Your task to perform on an android device: open wifi settings Image 0: 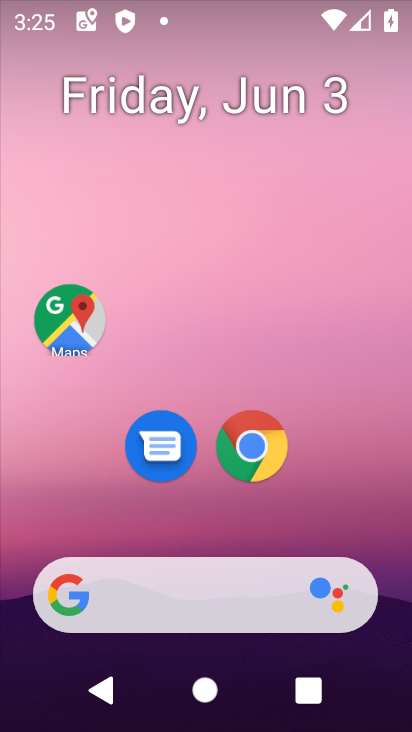
Step 0: click (362, 479)
Your task to perform on an android device: open wifi settings Image 1: 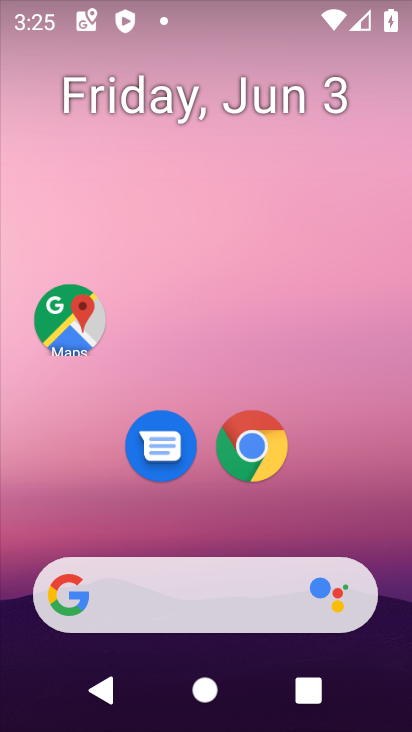
Step 1: drag from (354, 519) to (248, 100)
Your task to perform on an android device: open wifi settings Image 2: 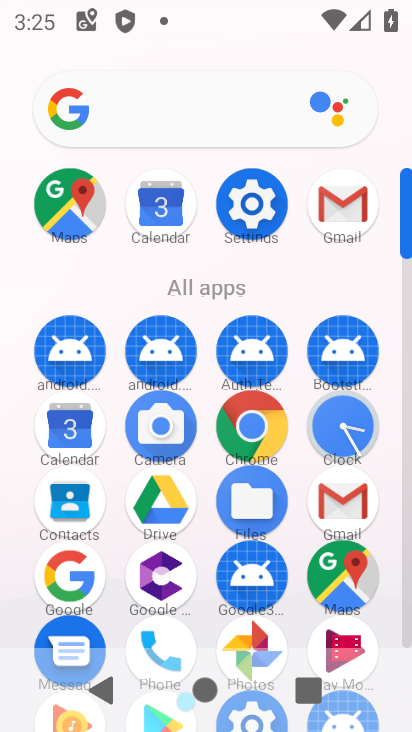
Step 2: click (261, 222)
Your task to perform on an android device: open wifi settings Image 3: 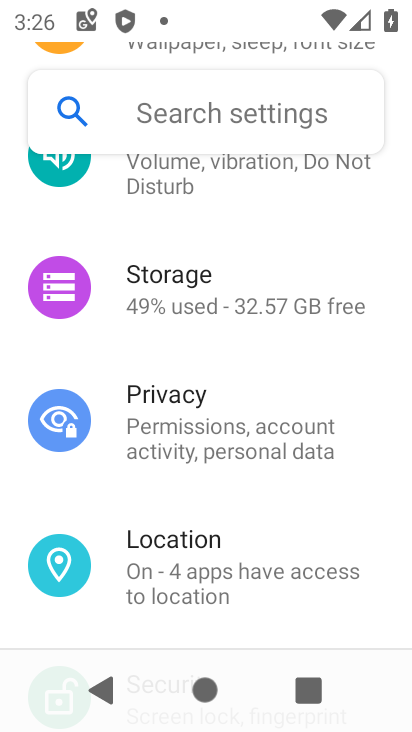
Step 3: drag from (281, 187) to (235, 287)
Your task to perform on an android device: open wifi settings Image 4: 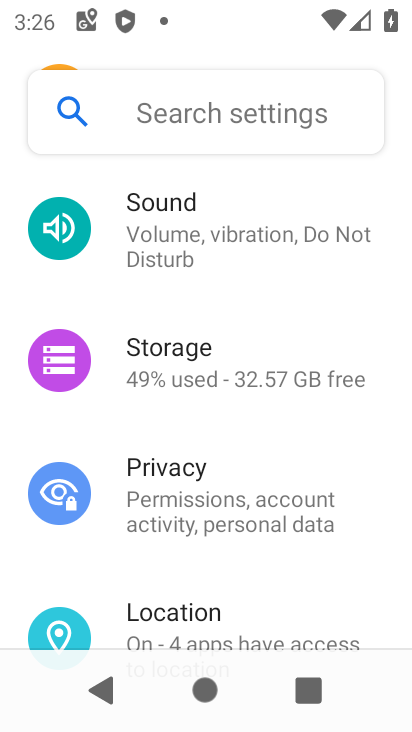
Step 4: click (229, 316)
Your task to perform on an android device: open wifi settings Image 5: 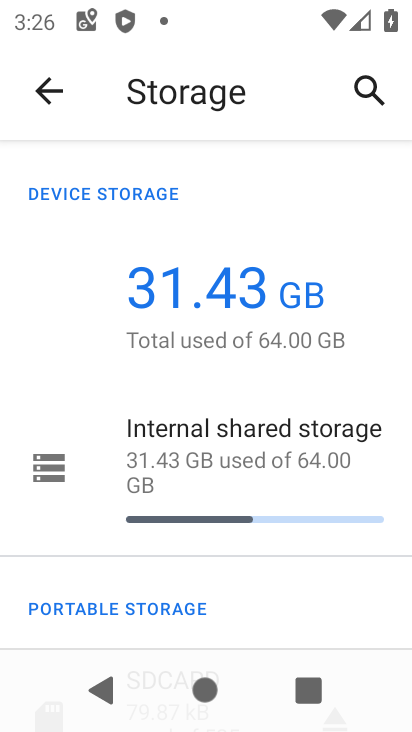
Step 5: task complete